Your task to perform on an android device: remove spam from my inbox in the gmail app Image 0: 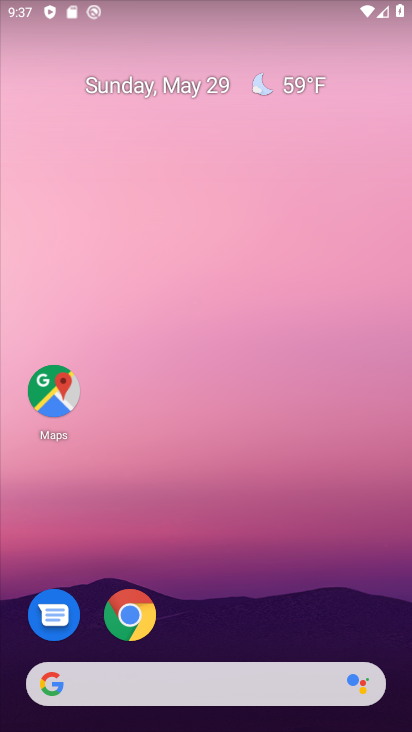
Step 0: drag from (255, 544) to (249, 109)
Your task to perform on an android device: remove spam from my inbox in the gmail app Image 1: 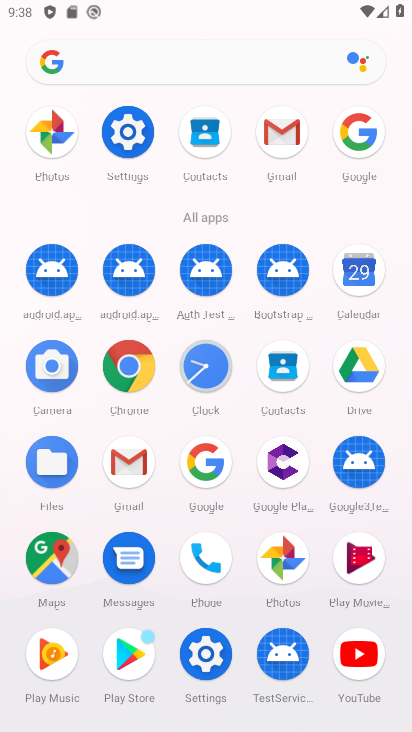
Step 1: click (285, 132)
Your task to perform on an android device: remove spam from my inbox in the gmail app Image 2: 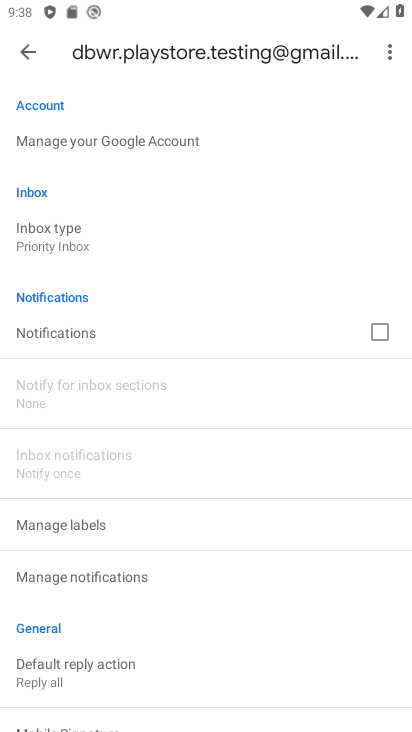
Step 2: press back button
Your task to perform on an android device: remove spam from my inbox in the gmail app Image 3: 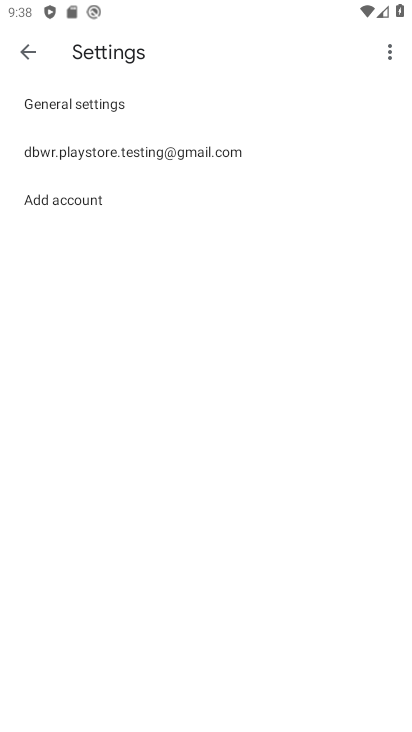
Step 3: press back button
Your task to perform on an android device: remove spam from my inbox in the gmail app Image 4: 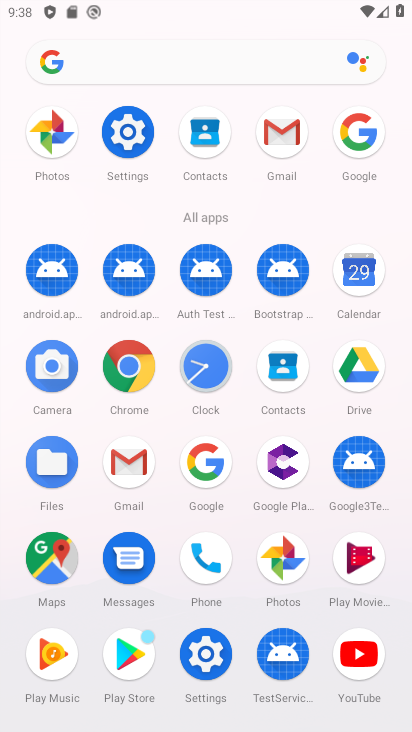
Step 4: click (282, 135)
Your task to perform on an android device: remove spam from my inbox in the gmail app Image 5: 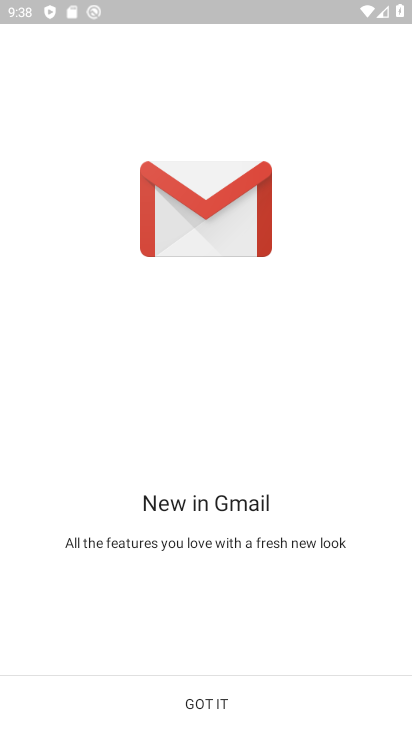
Step 5: click (213, 655)
Your task to perform on an android device: remove spam from my inbox in the gmail app Image 6: 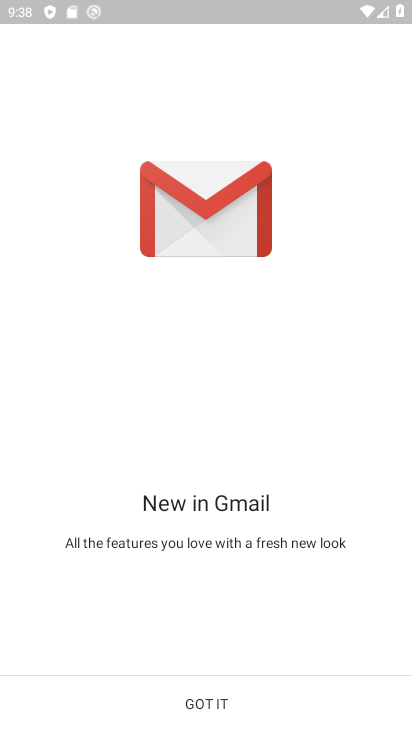
Step 6: click (224, 704)
Your task to perform on an android device: remove spam from my inbox in the gmail app Image 7: 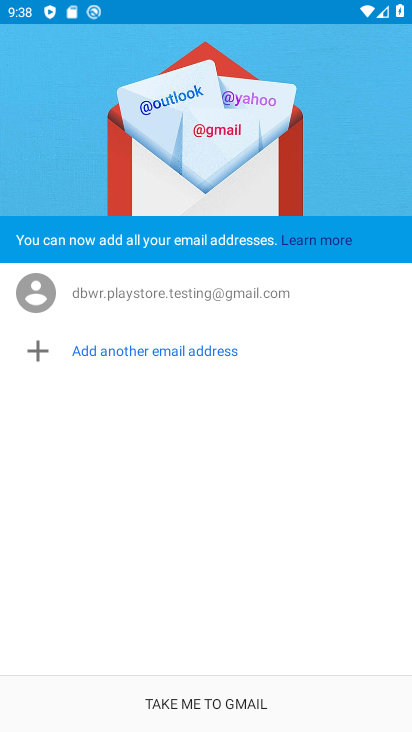
Step 7: click (208, 700)
Your task to perform on an android device: remove spam from my inbox in the gmail app Image 8: 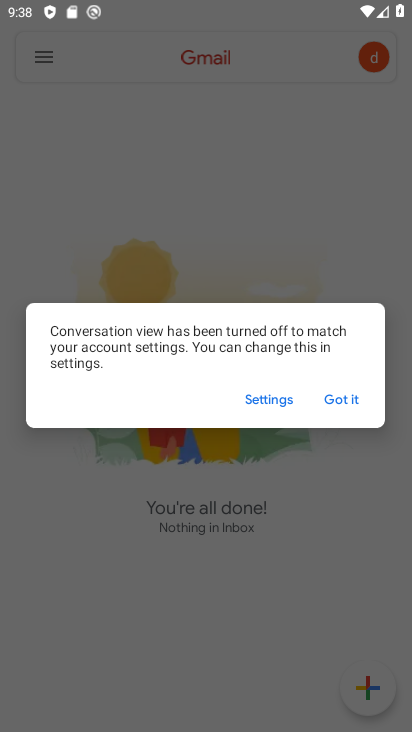
Step 8: click (333, 400)
Your task to perform on an android device: remove spam from my inbox in the gmail app Image 9: 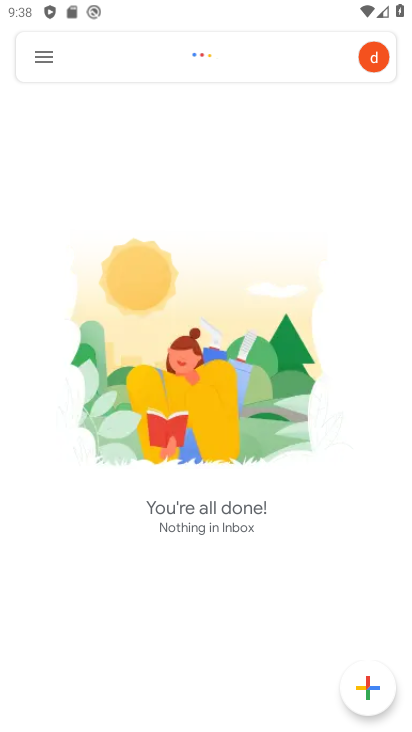
Step 9: click (49, 52)
Your task to perform on an android device: remove spam from my inbox in the gmail app Image 10: 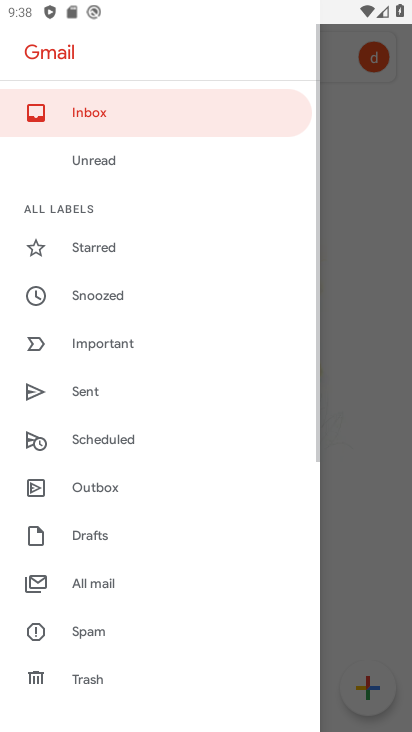
Step 10: click (137, 110)
Your task to perform on an android device: remove spam from my inbox in the gmail app Image 11: 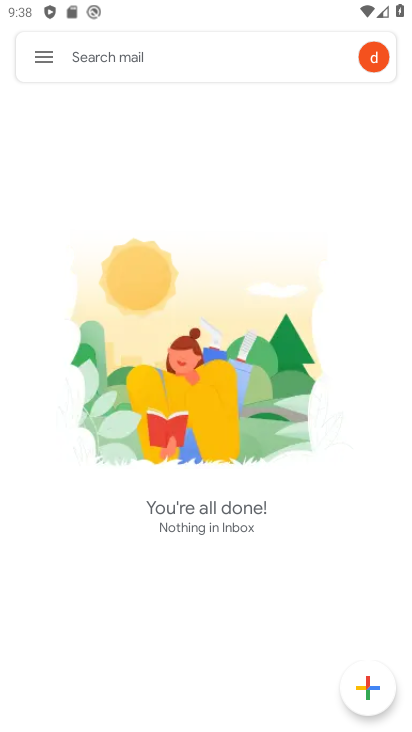
Step 11: task complete